Your task to perform on an android device: Search for hotels in Los Angeles Image 0: 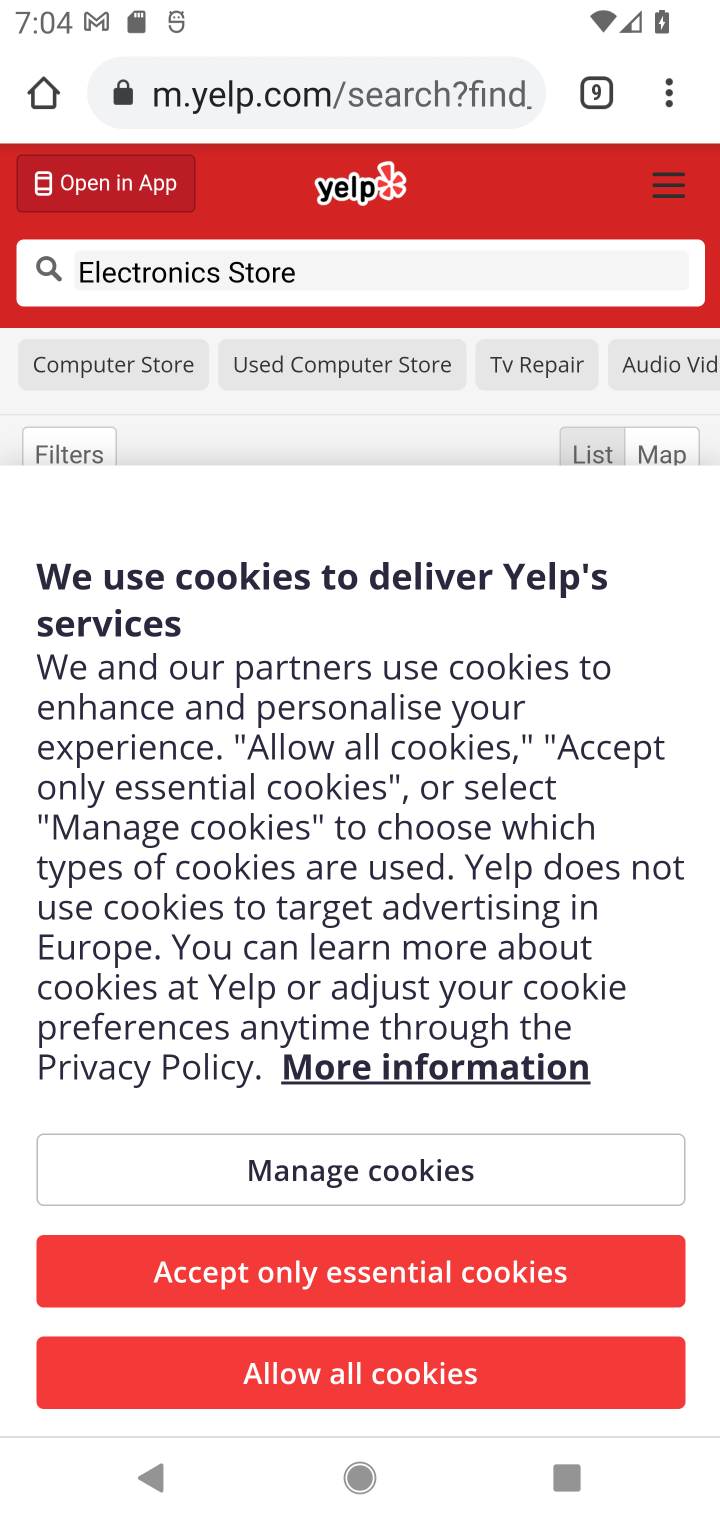
Step 0: press home button
Your task to perform on an android device: Search for hotels in Los Angeles Image 1: 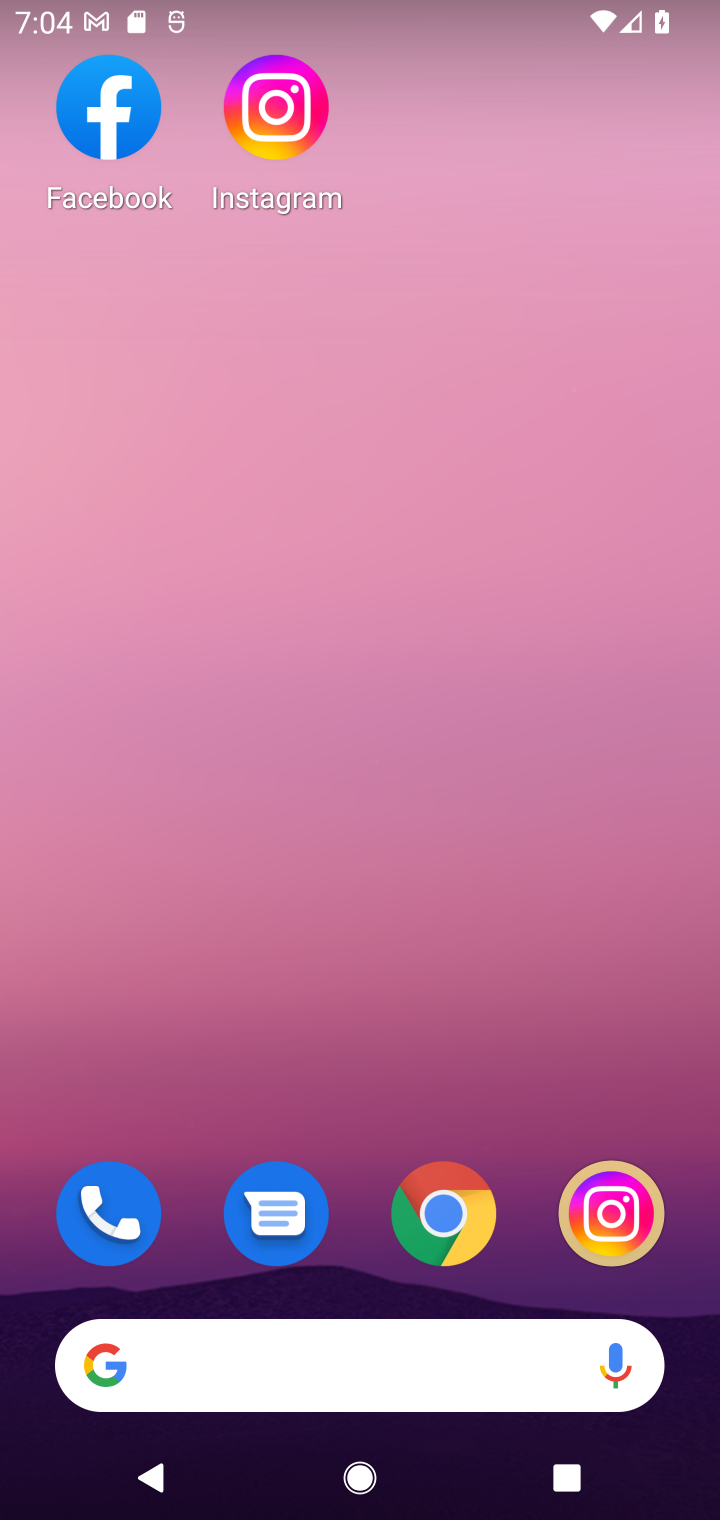
Step 1: drag from (364, 1307) to (374, 384)
Your task to perform on an android device: Search for hotels in Los Angeles Image 2: 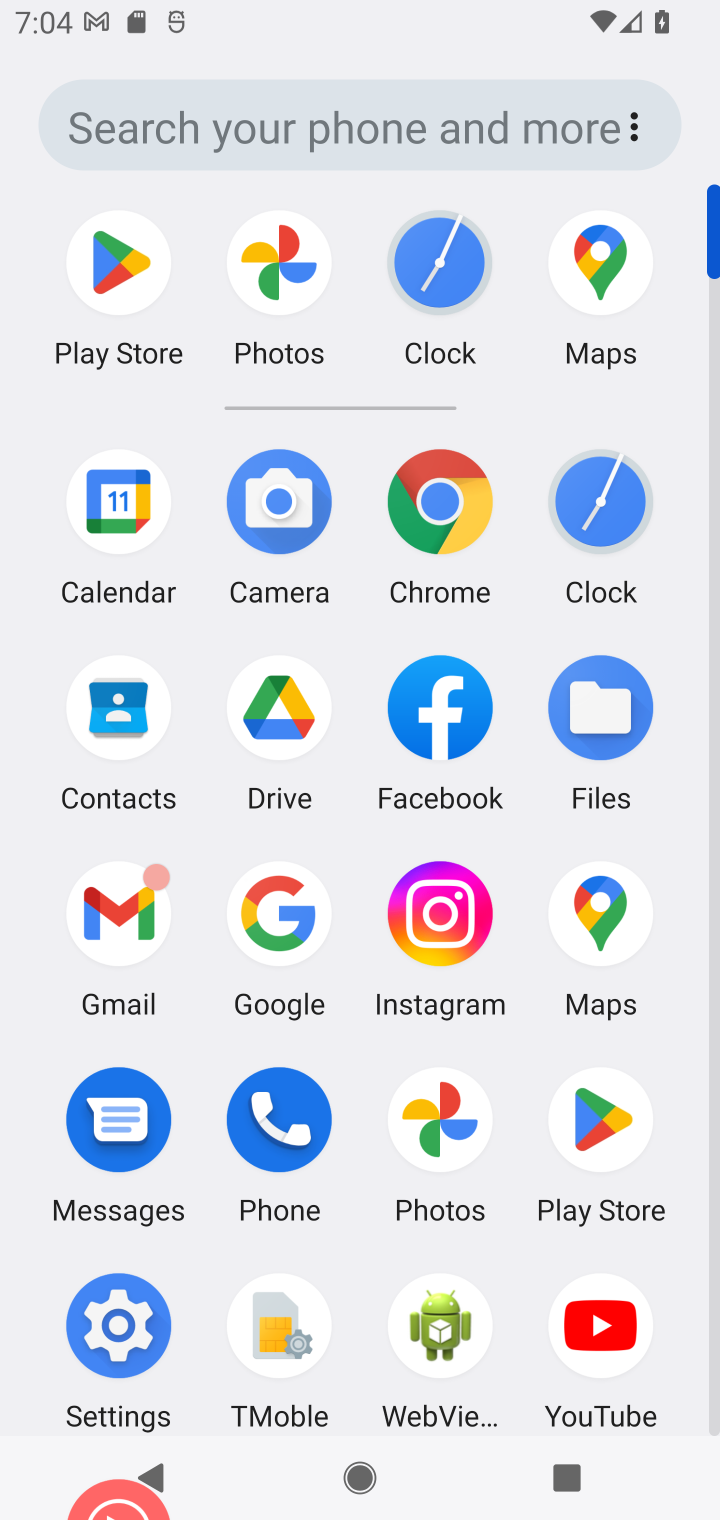
Step 2: click (274, 894)
Your task to perform on an android device: Search for hotels in Los Angeles Image 3: 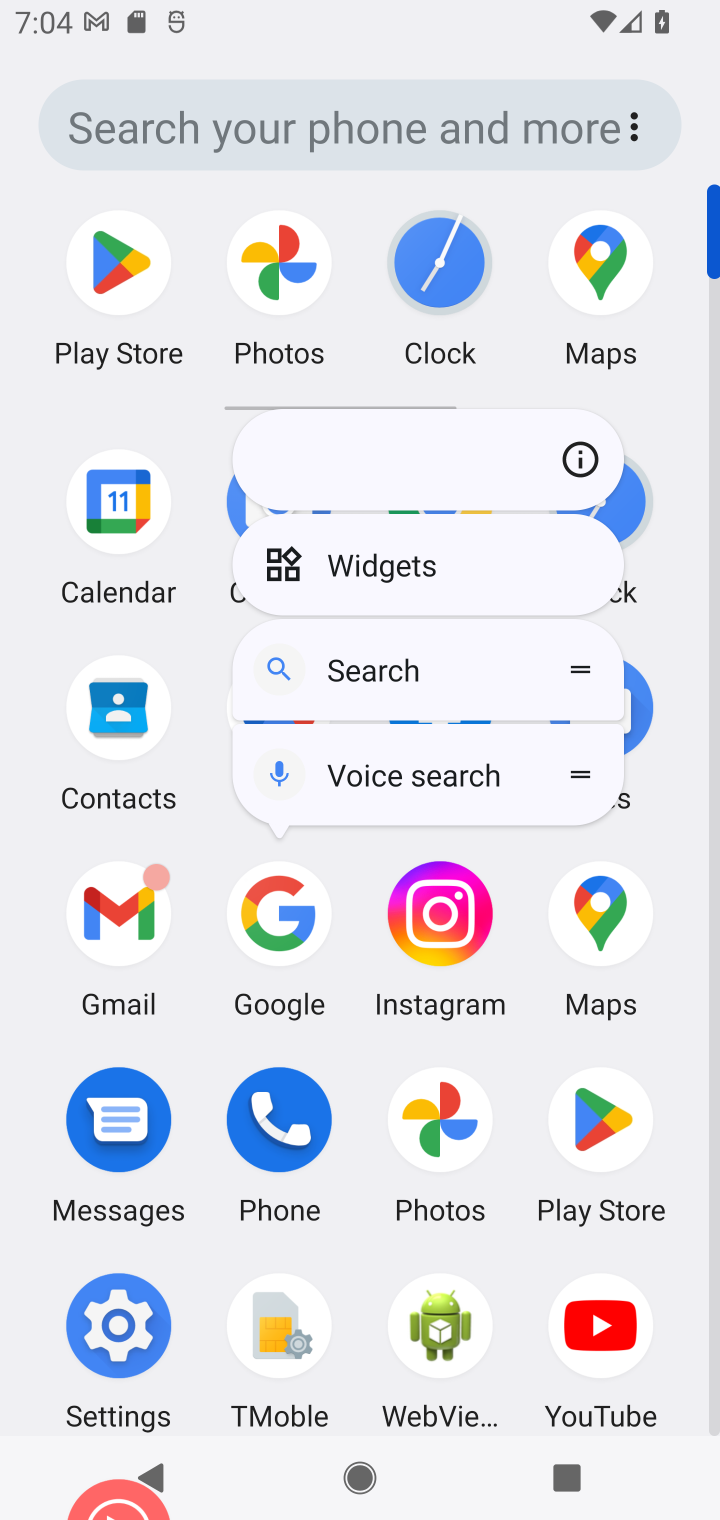
Step 3: click (274, 894)
Your task to perform on an android device: Search for hotels in Los Angeles Image 4: 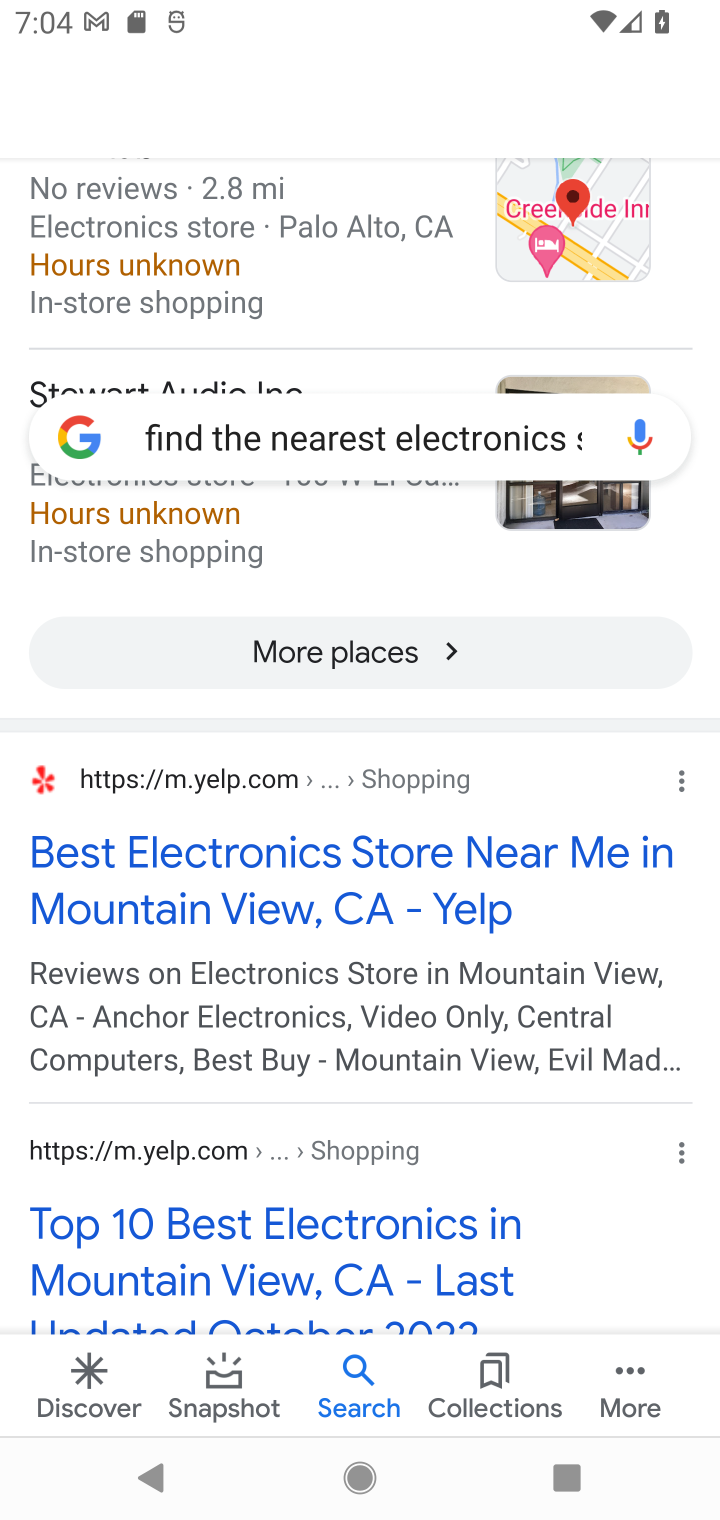
Step 4: click (262, 432)
Your task to perform on an android device: Search for hotels in Los Angeles Image 5: 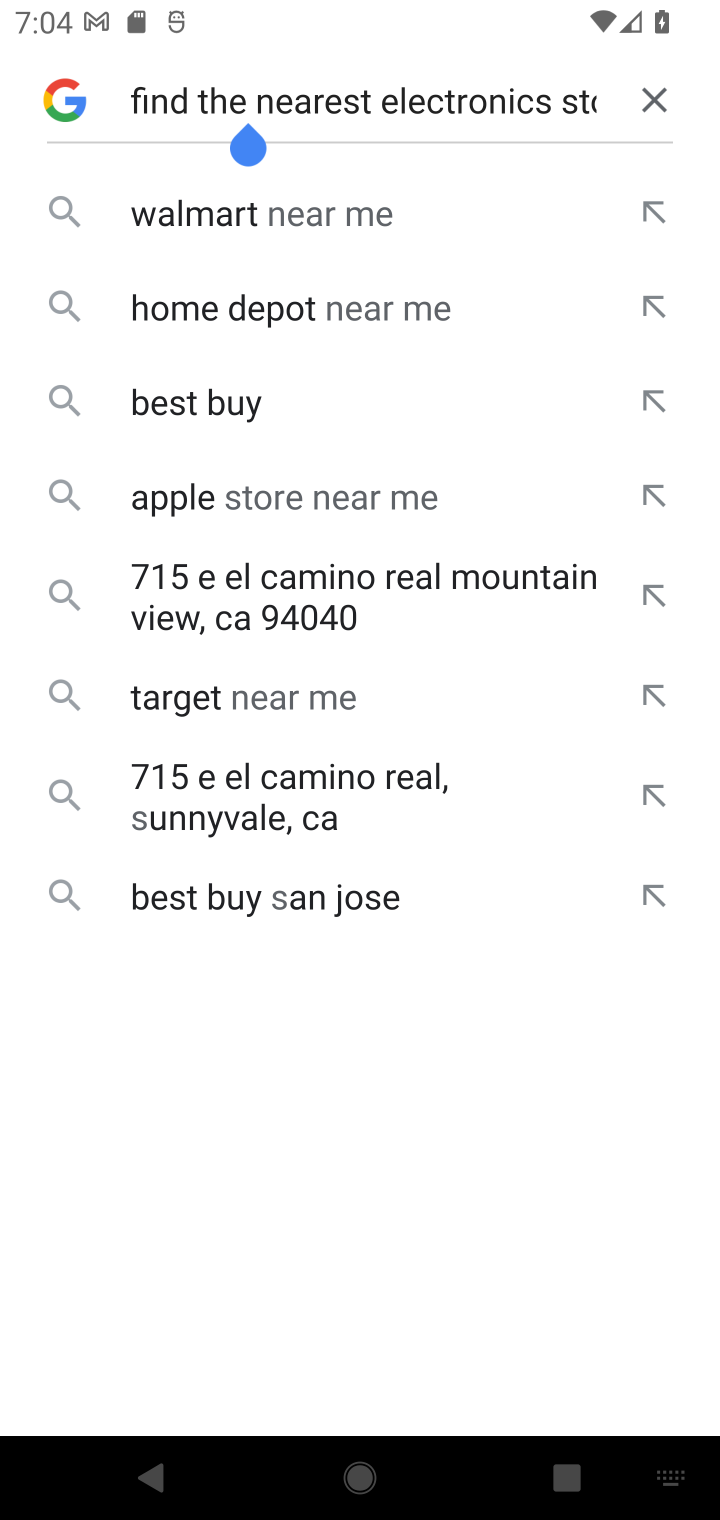
Step 5: click (650, 96)
Your task to perform on an android device: Search for hotels in Los Angeles Image 6: 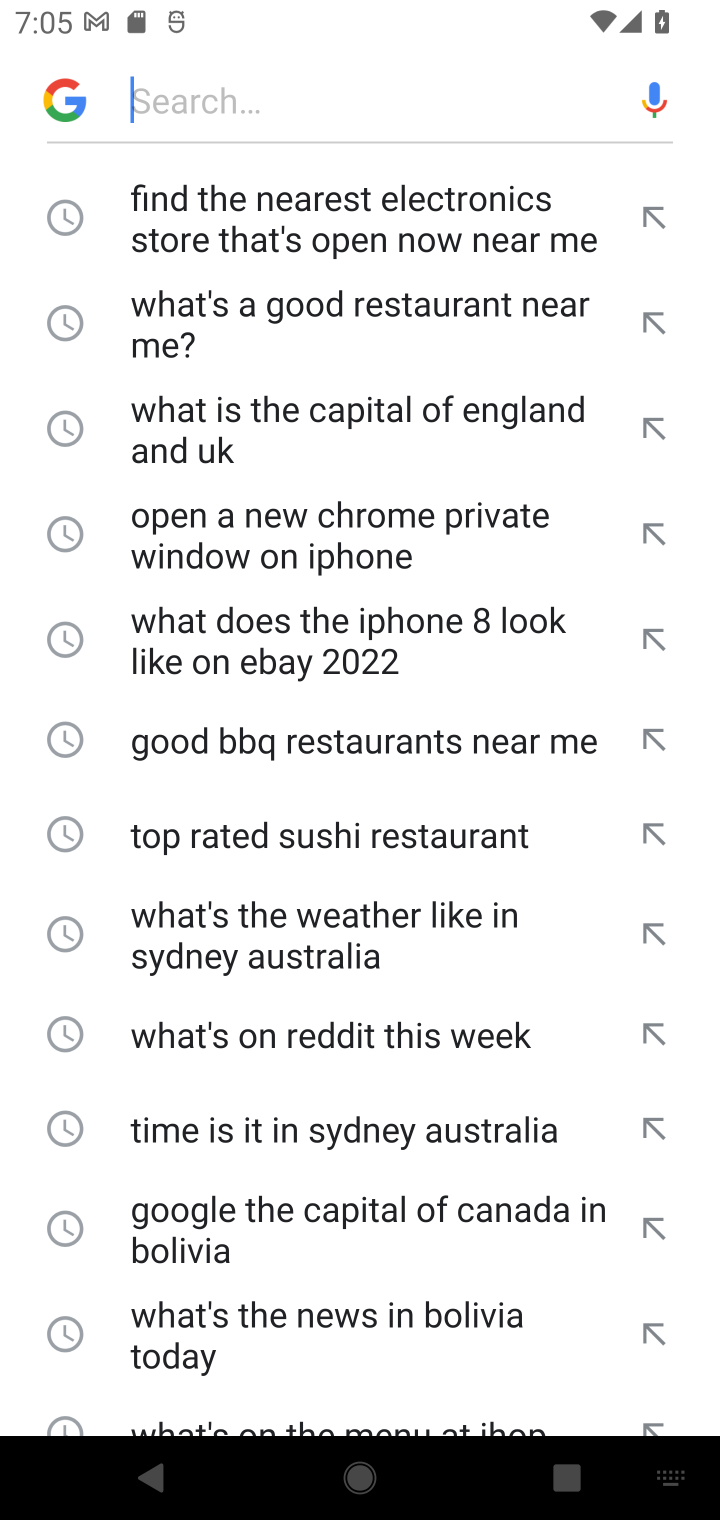
Step 6: click (372, 69)
Your task to perform on an android device: Search for hotels in Los Angeles Image 7: 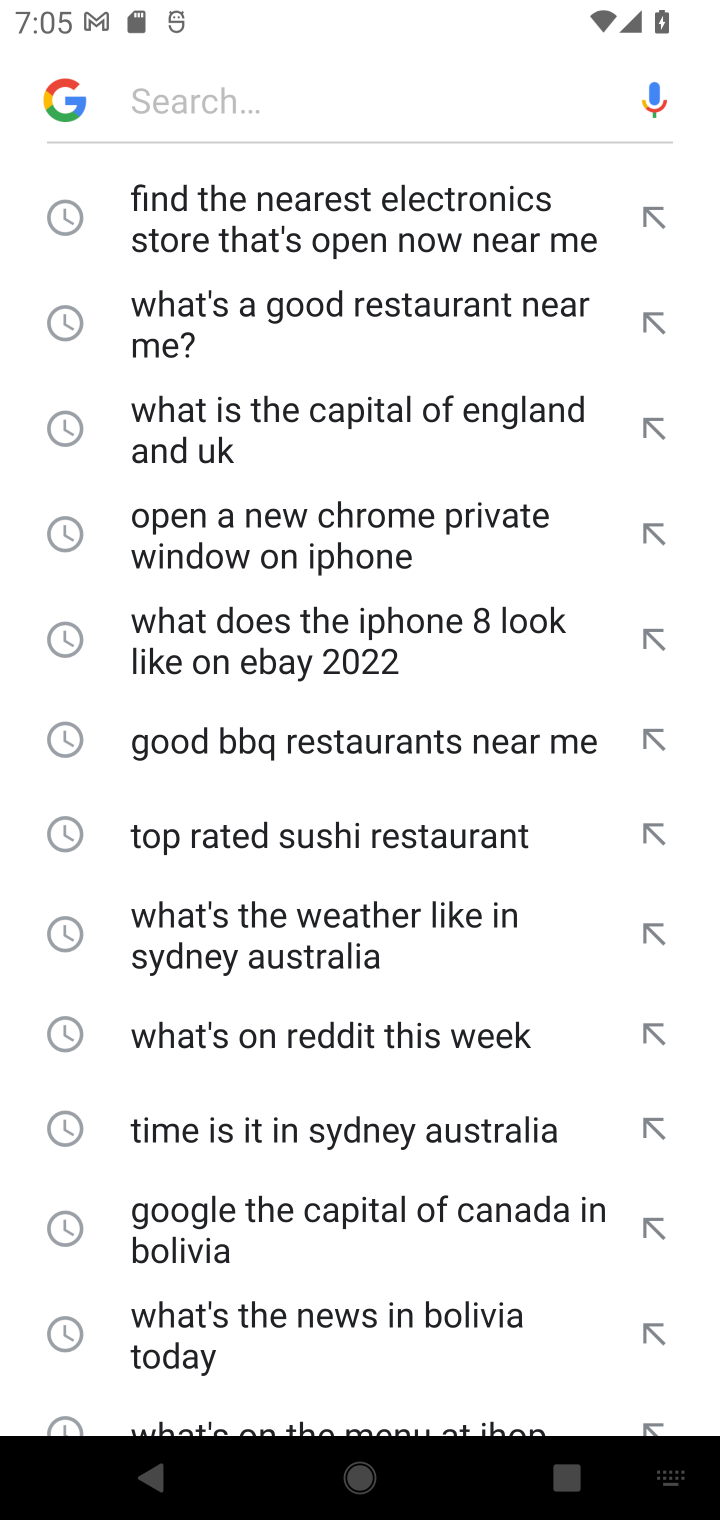
Step 7: type "Search for hotels in Los Angeles "
Your task to perform on an android device: Search for hotels in Los Angeles Image 8: 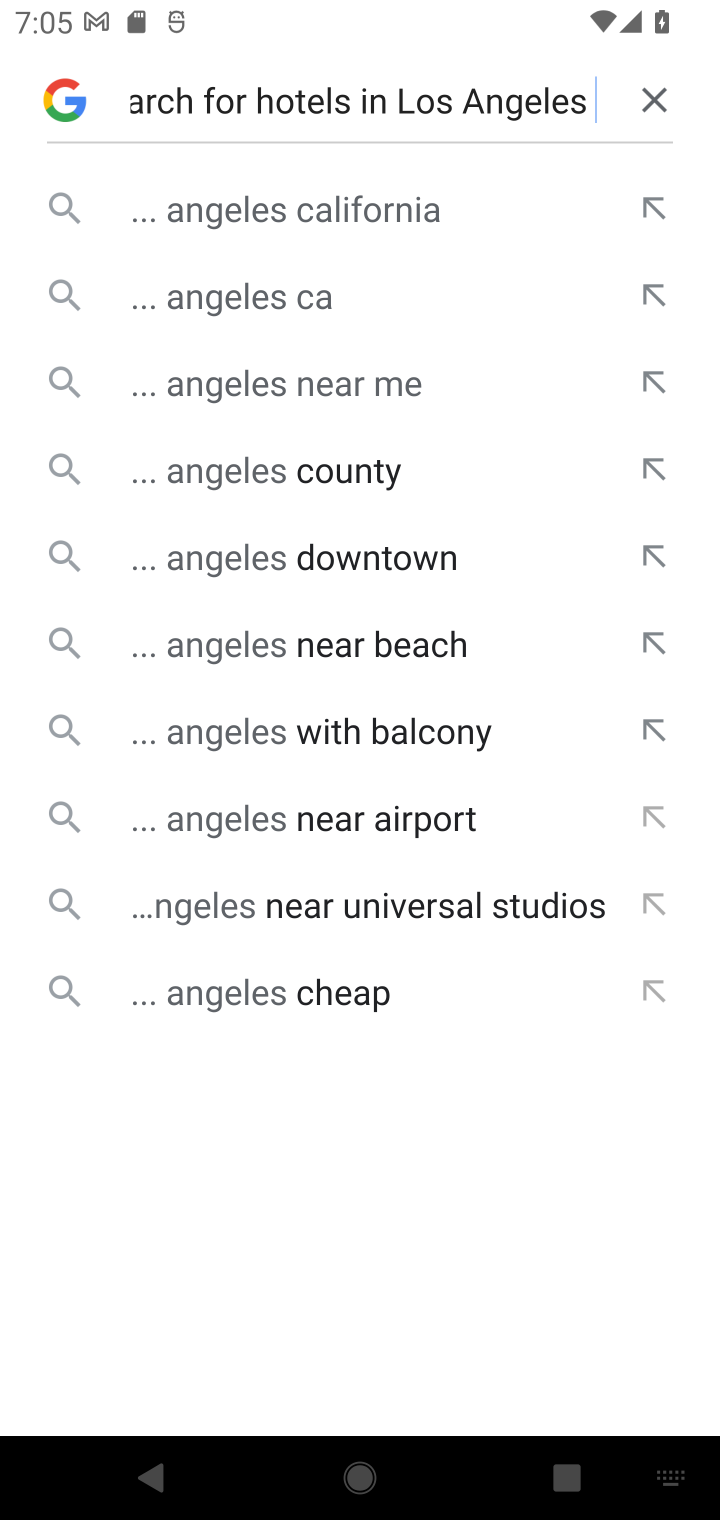
Step 8: click (222, 194)
Your task to perform on an android device: Search for hotels in Los Angeles Image 9: 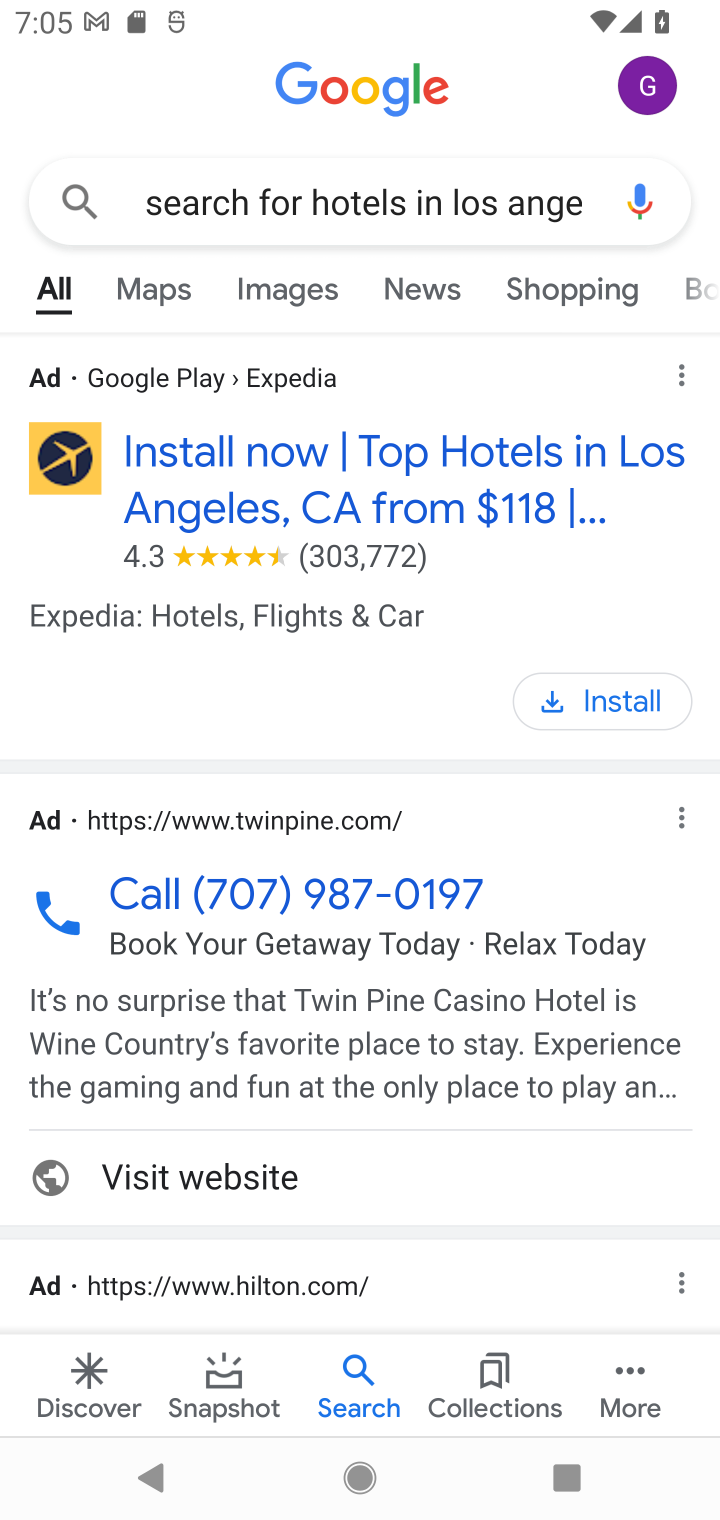
Step 9: click (269, 462)
Your task to perform on an android device: Search for hotels in Los Angeles Image 10: 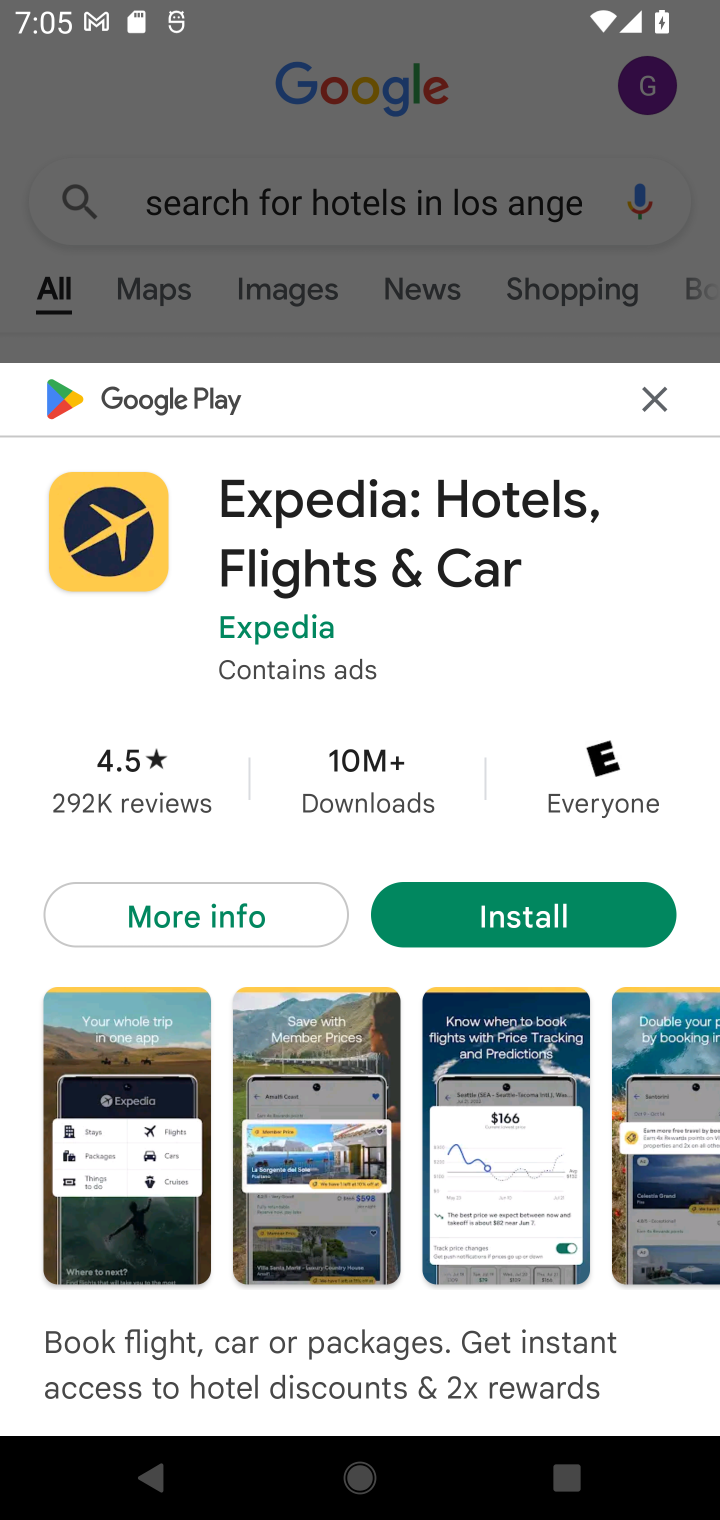
Step 10: click (641, 393)
Your task to perform on an android device: Search for hotels in Los Angeles Image 11: 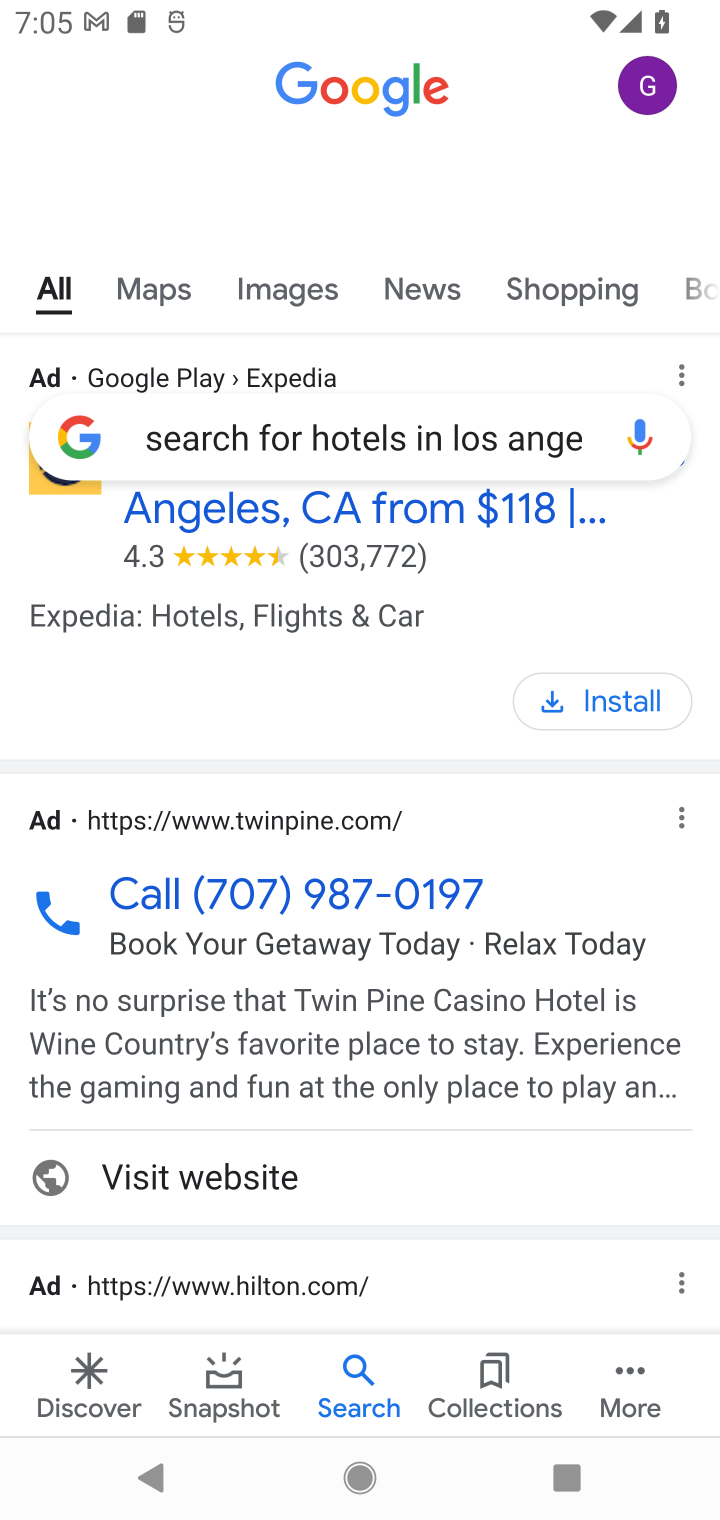
Step 11: drag from (318, 1257) to (376, 462)
Your task to perform on an android device: Search for hotels in Los Angeles Image 12: 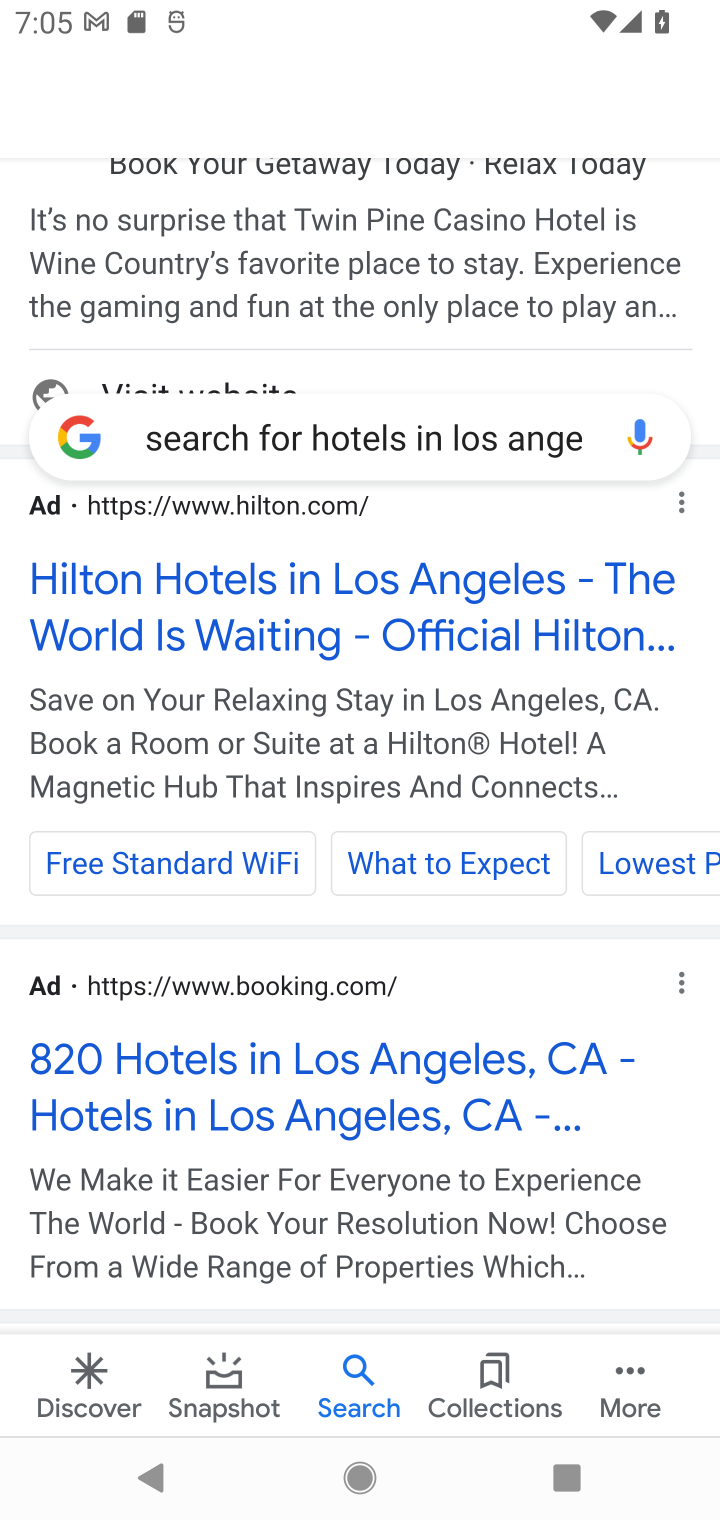
Step 12: click (217, 577)
Your task to perform on an android device: Search for hotels in Los Angeles Image 13: 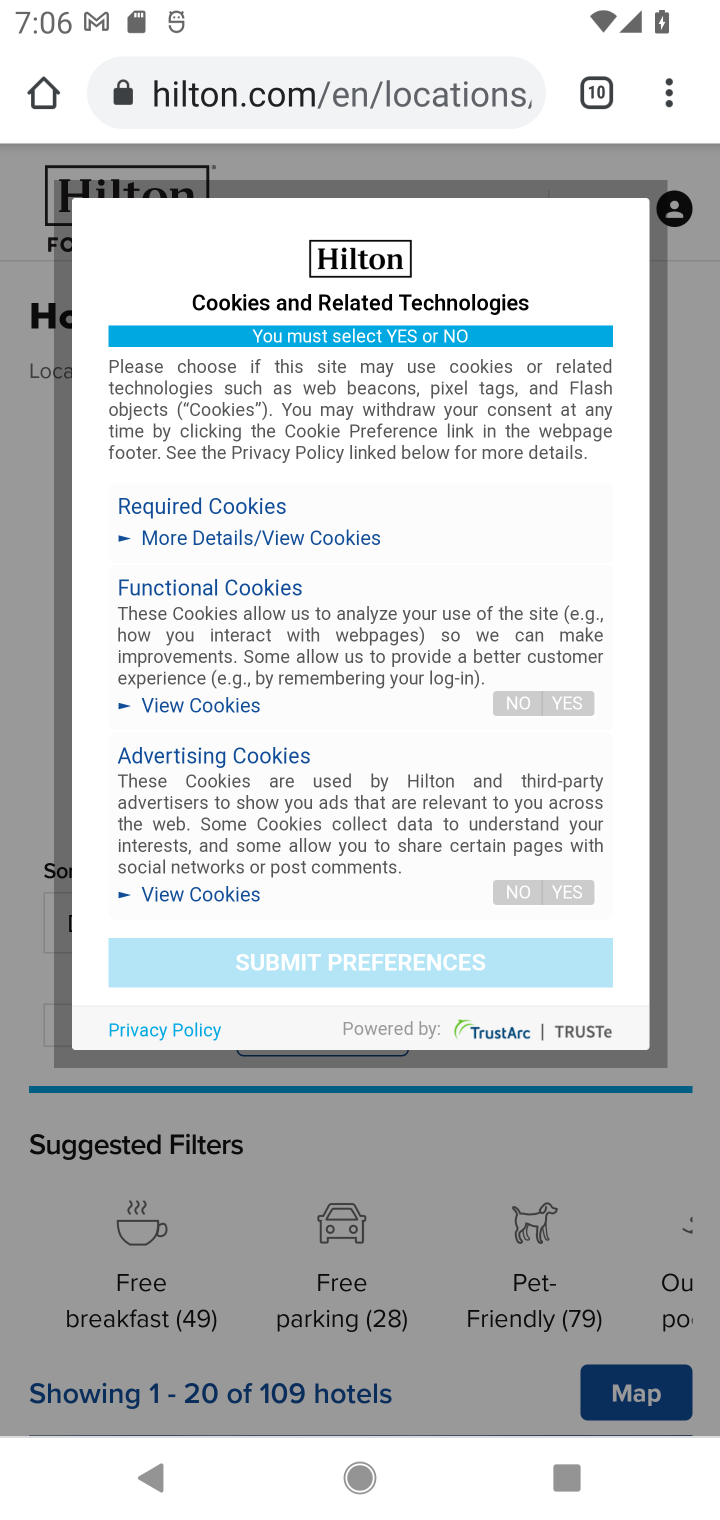
Step 13: click (705, 844)
Your task to perform on an android device: Search for hotels in Los Angeles Image 14: 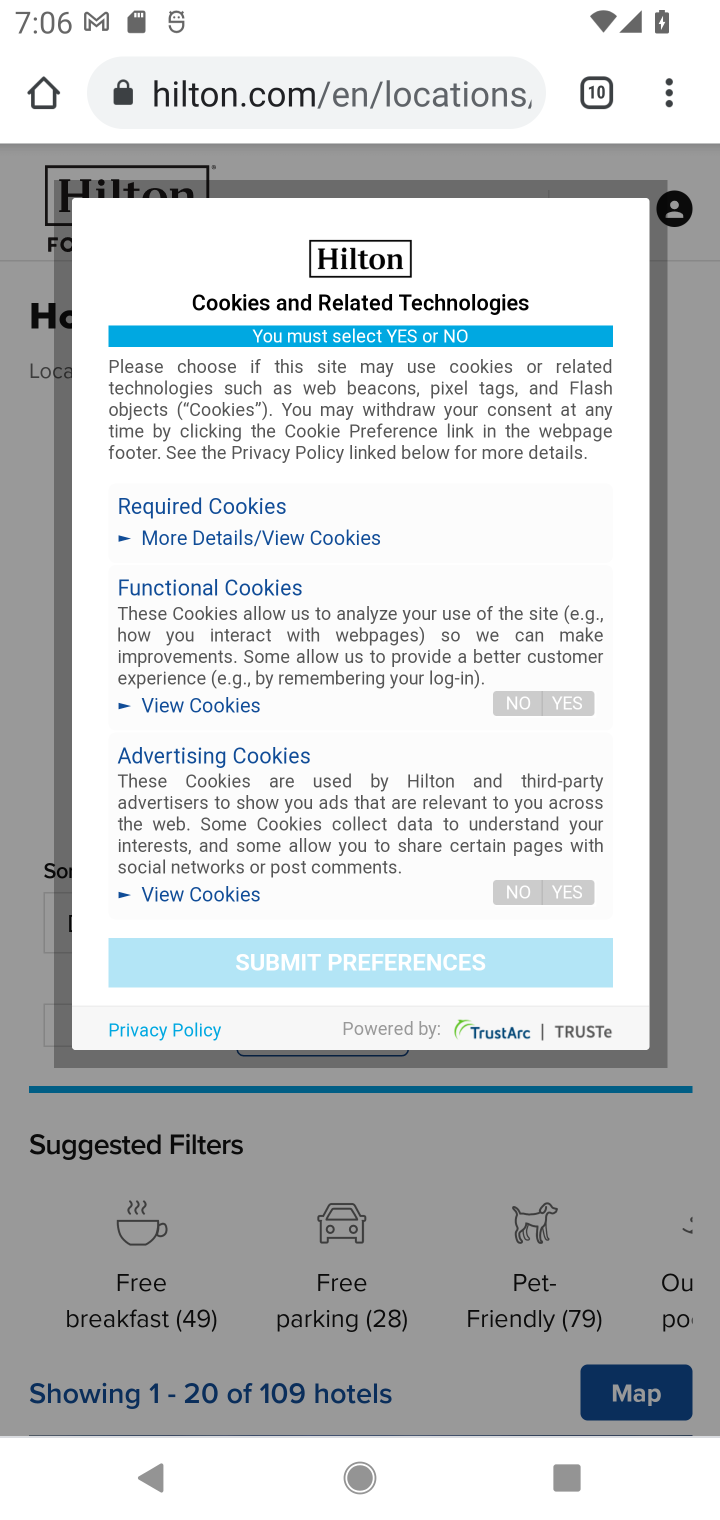
Step 14: click (686, 211)
Your task to perform on an android device: Search for hotels in Los Angeles Image 15: 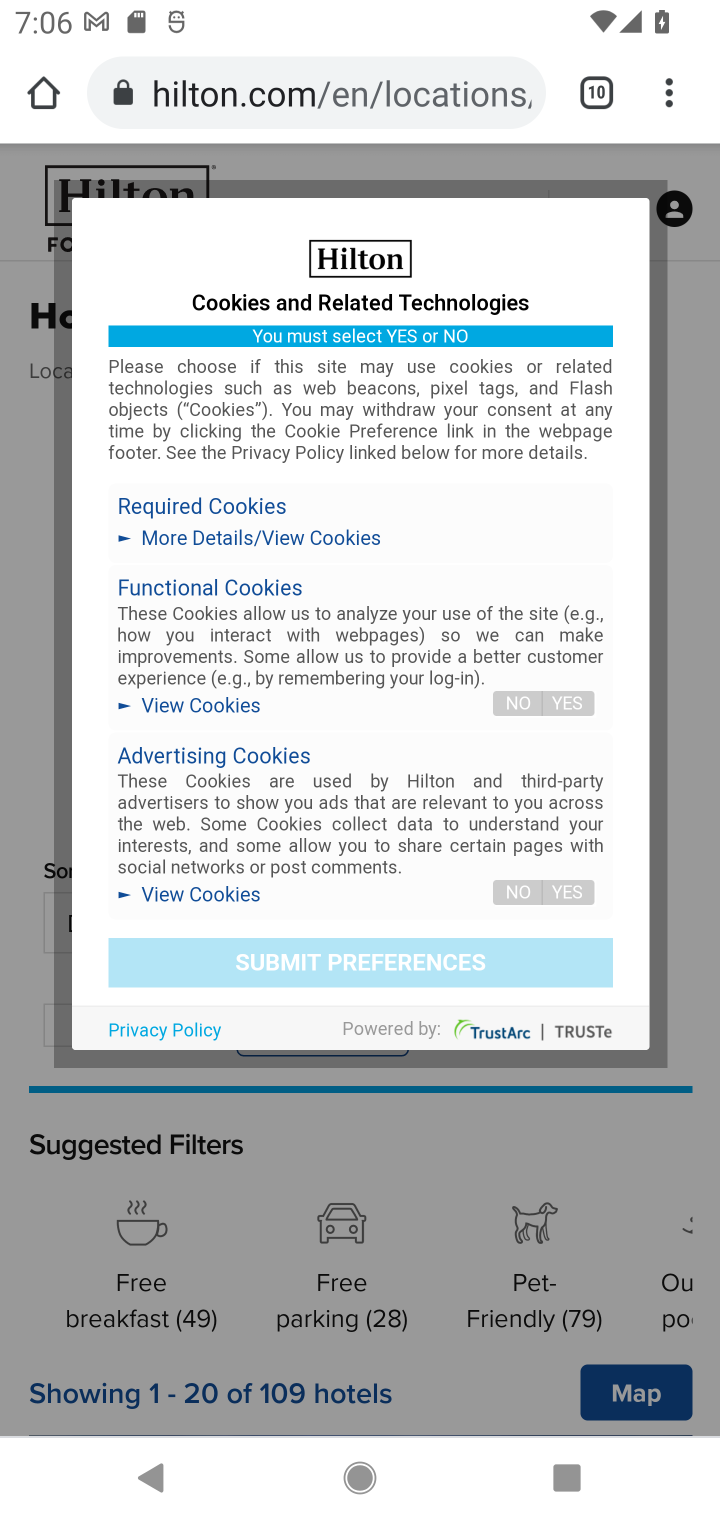
Step 15: click (392, 1202)
Your task to perform on an android device: Search for hotels in Los Angeles Image 16: 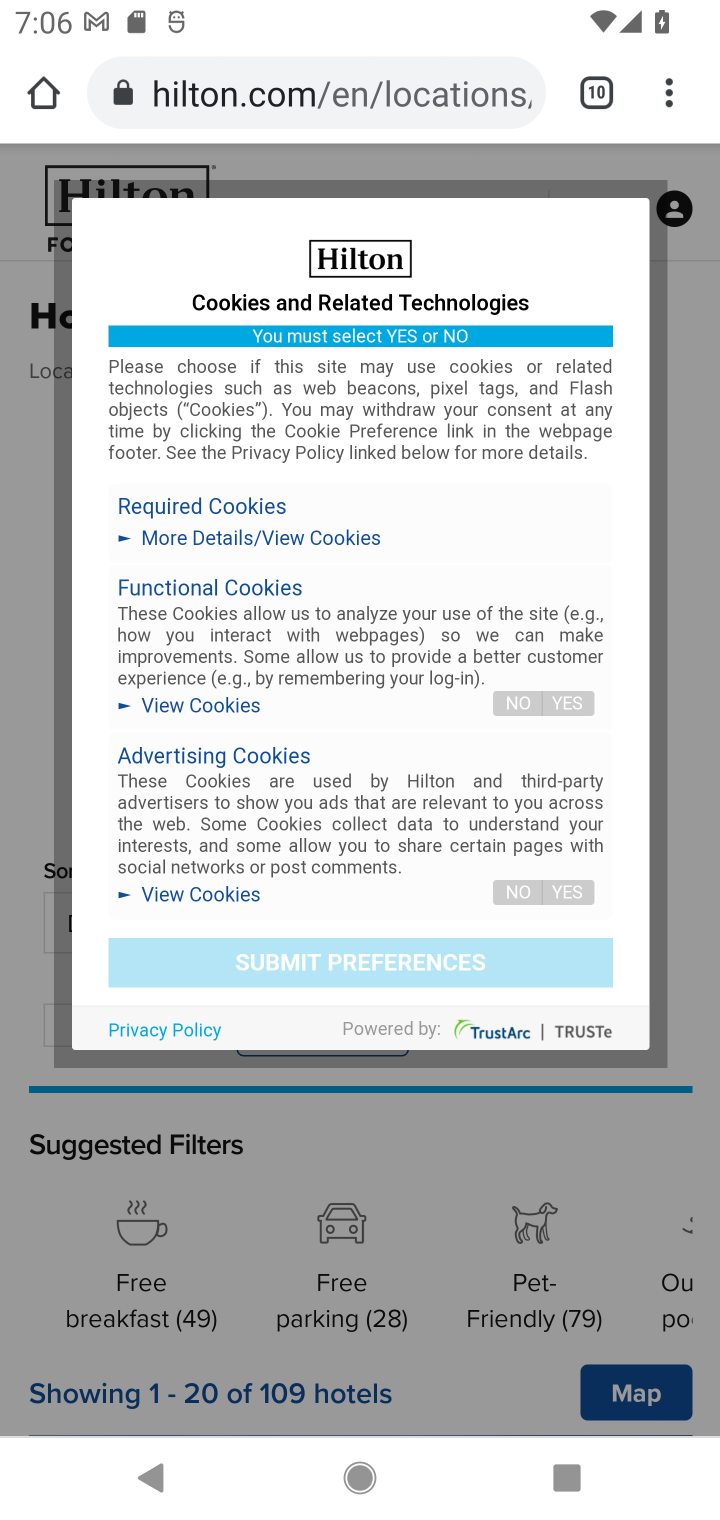
Step 16: click (676, 226)
Your task to perform on an android device: Search for hotels in Los Angeles Image 17: 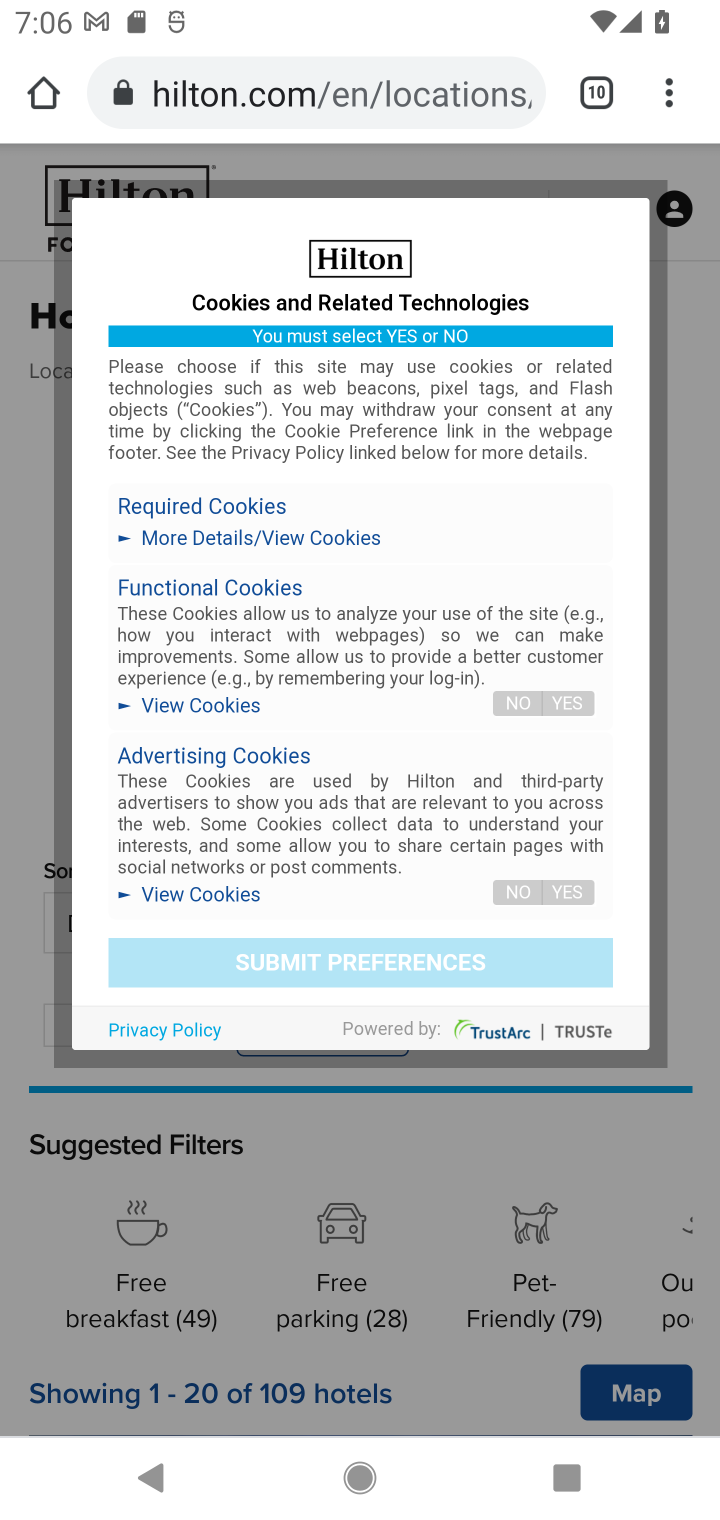
Step 17: press back button
Your task to perform on an android device: Search for hotels in Los Angeles Image 18: 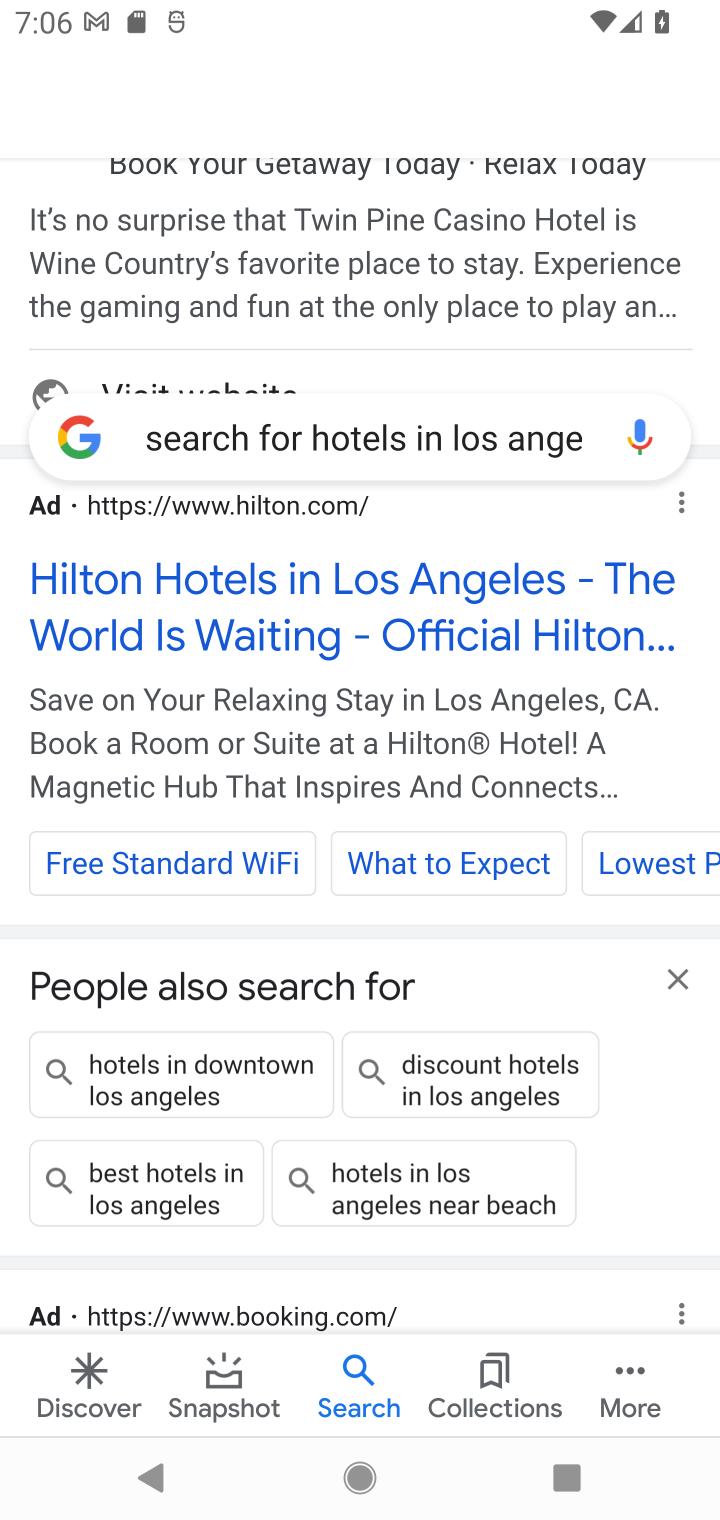
Step 18: drag from (199, 1107) to (266, 669)
Your task to perform on an android device: Search for hotels in Los Angeles Image 19: 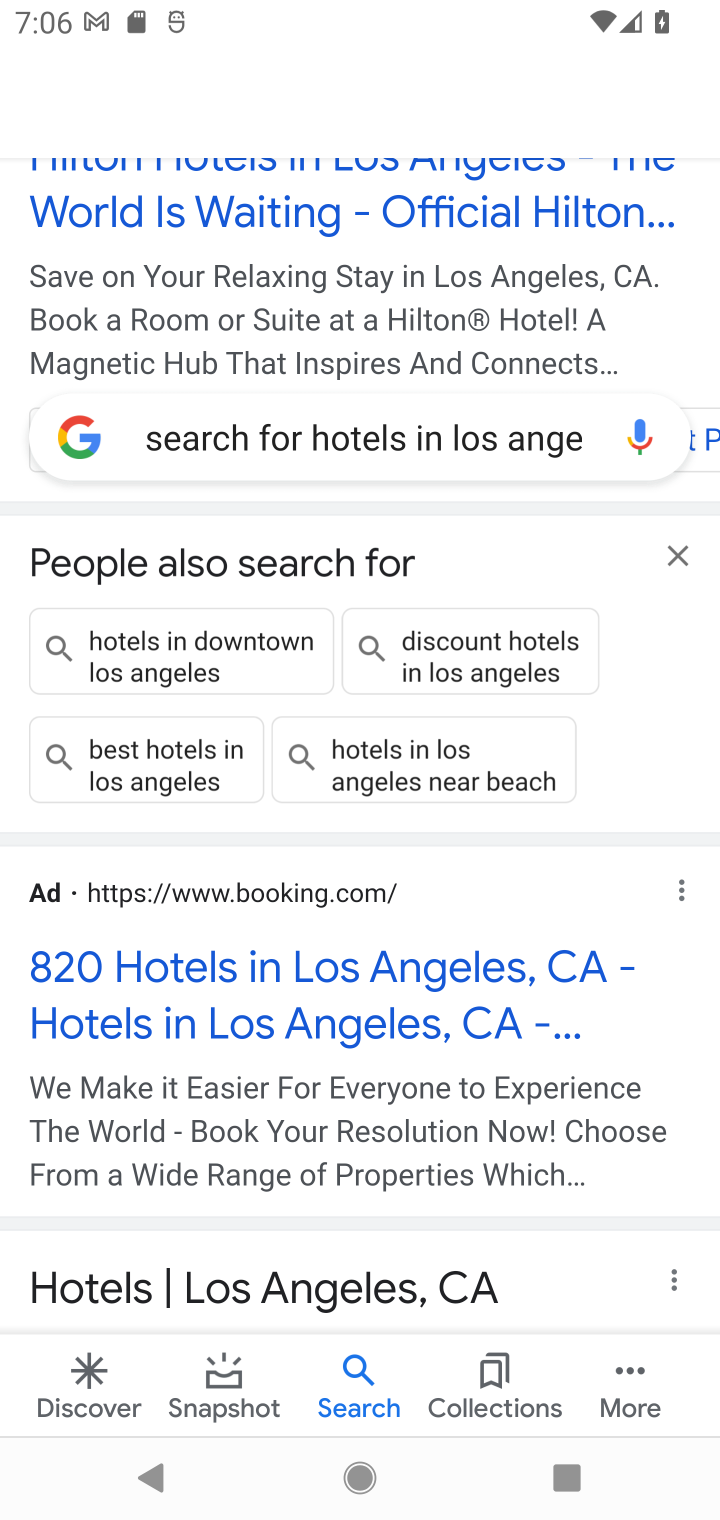
Step 19: click (266, 972)
Your task to perform on an android device: Search for hotels in Los Angeles Image 20: 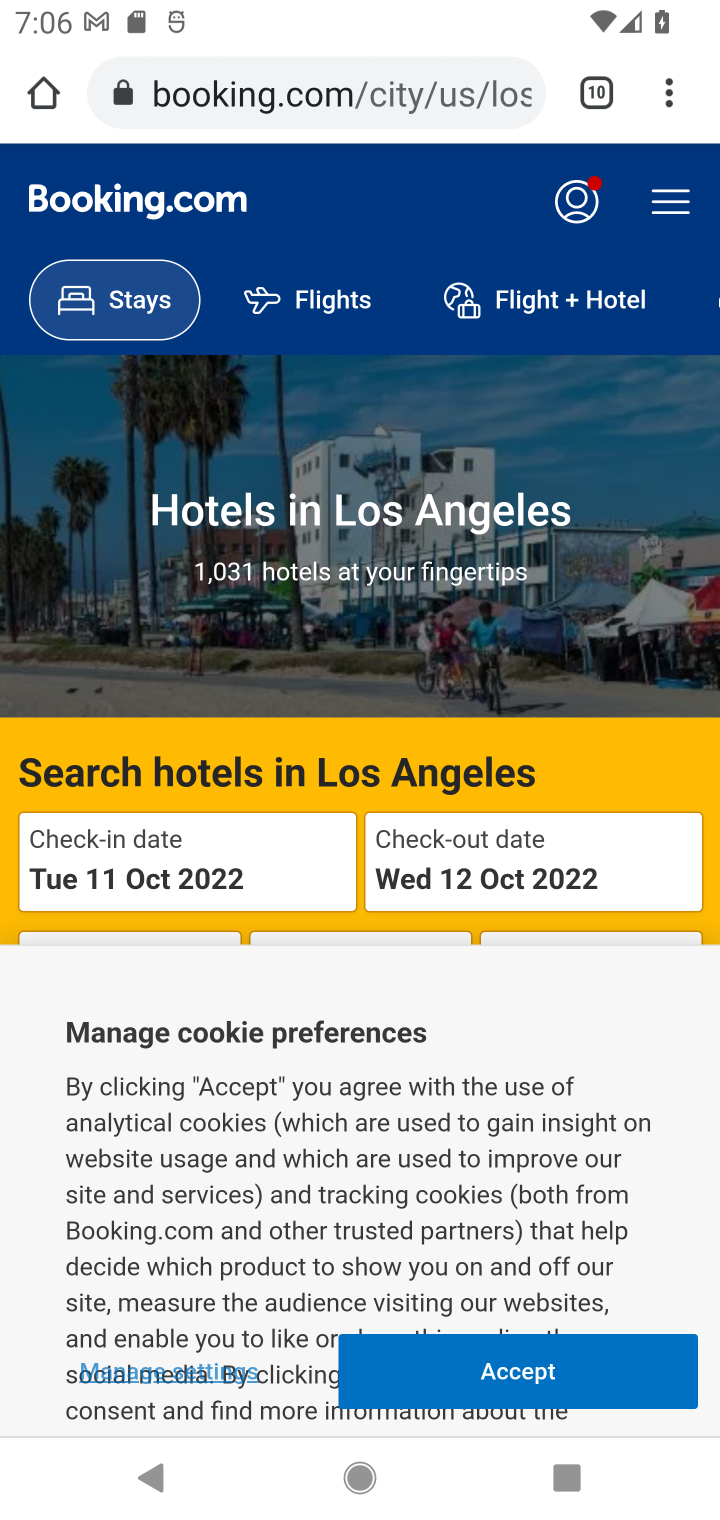
Step 20: click (277, 1121)
Your task to perform on an android device: Search for hotels in Los Angeles Image 21: 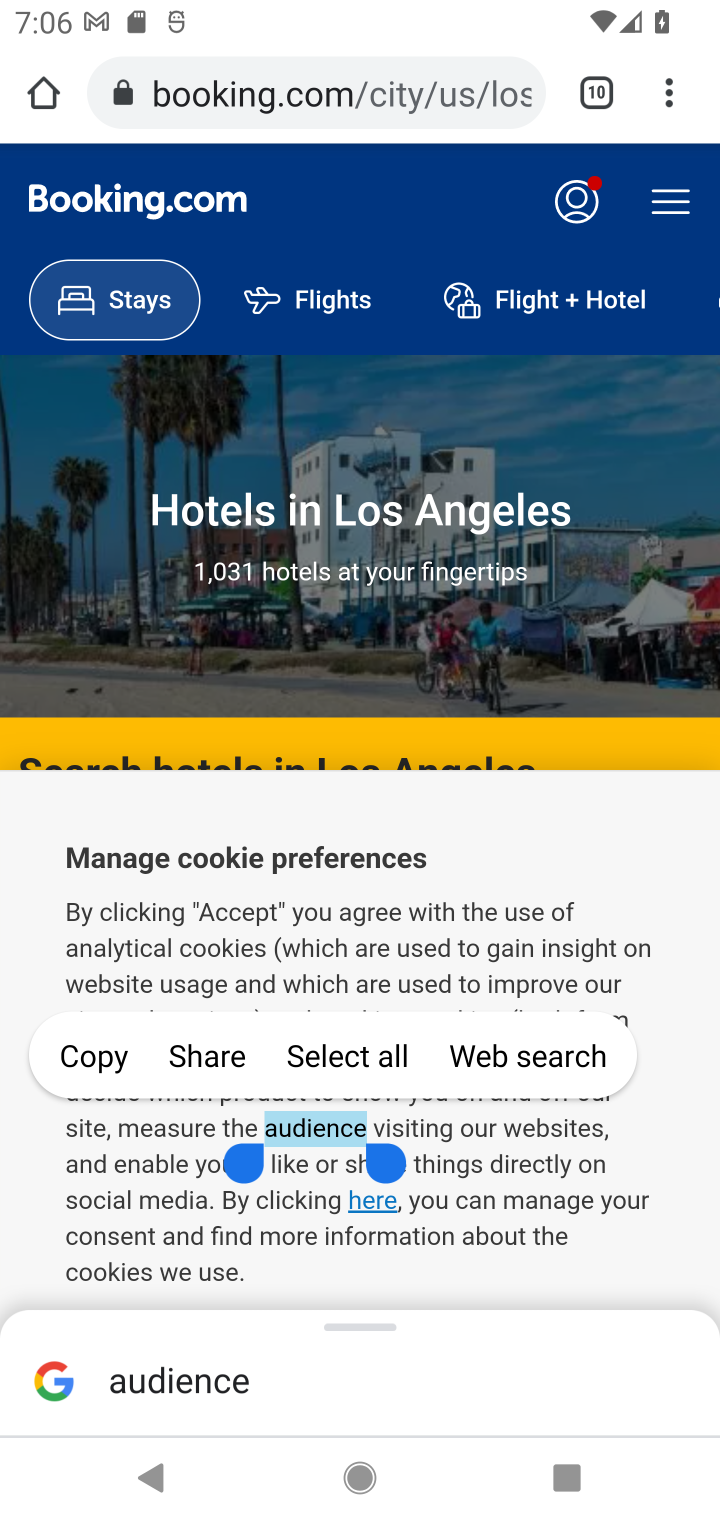
Step 21: click (677, 1269)
Your task to perform on an android device: Search for hotels in Los Angeles Image 22: 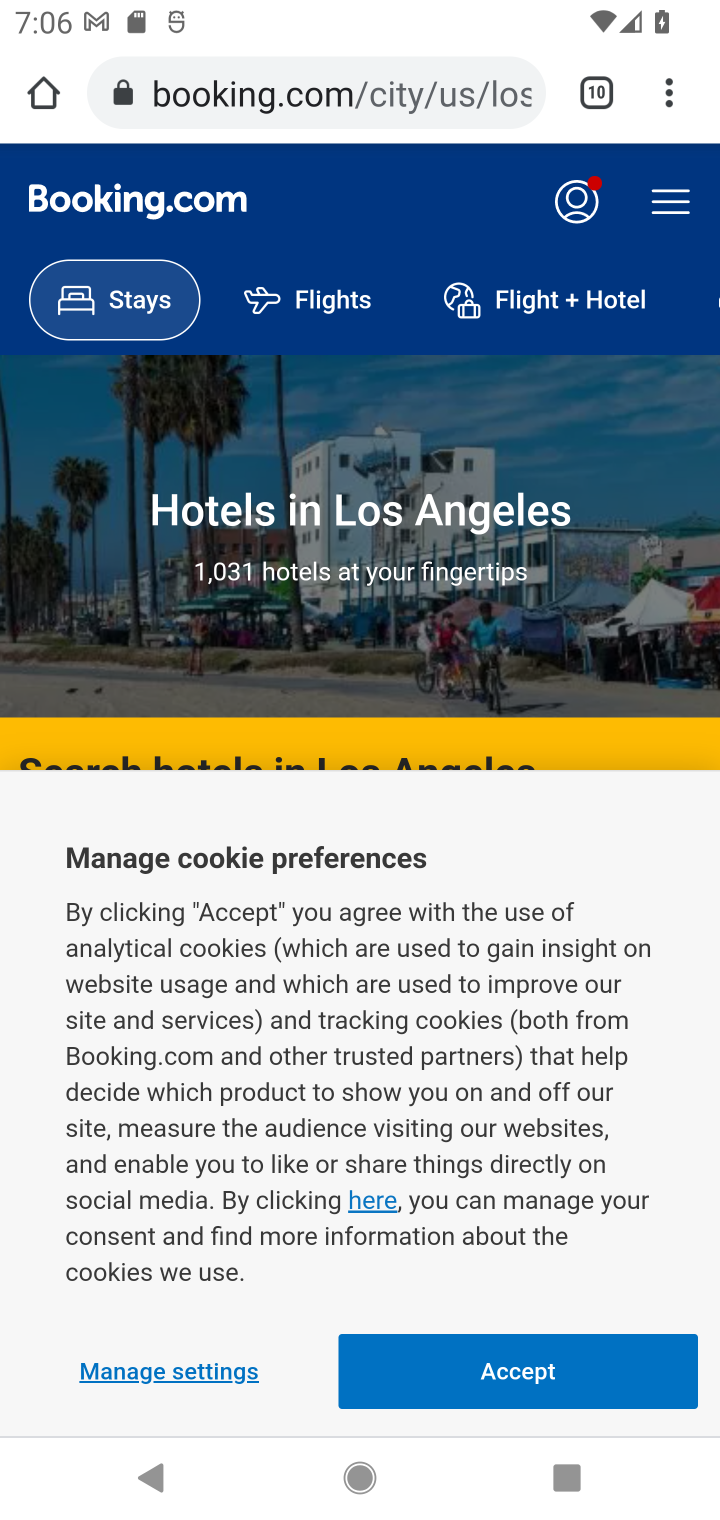
Step 22: click (431, 1365)
Your task to perform on an android device: Search for hotels in Los Angeles Image 23: 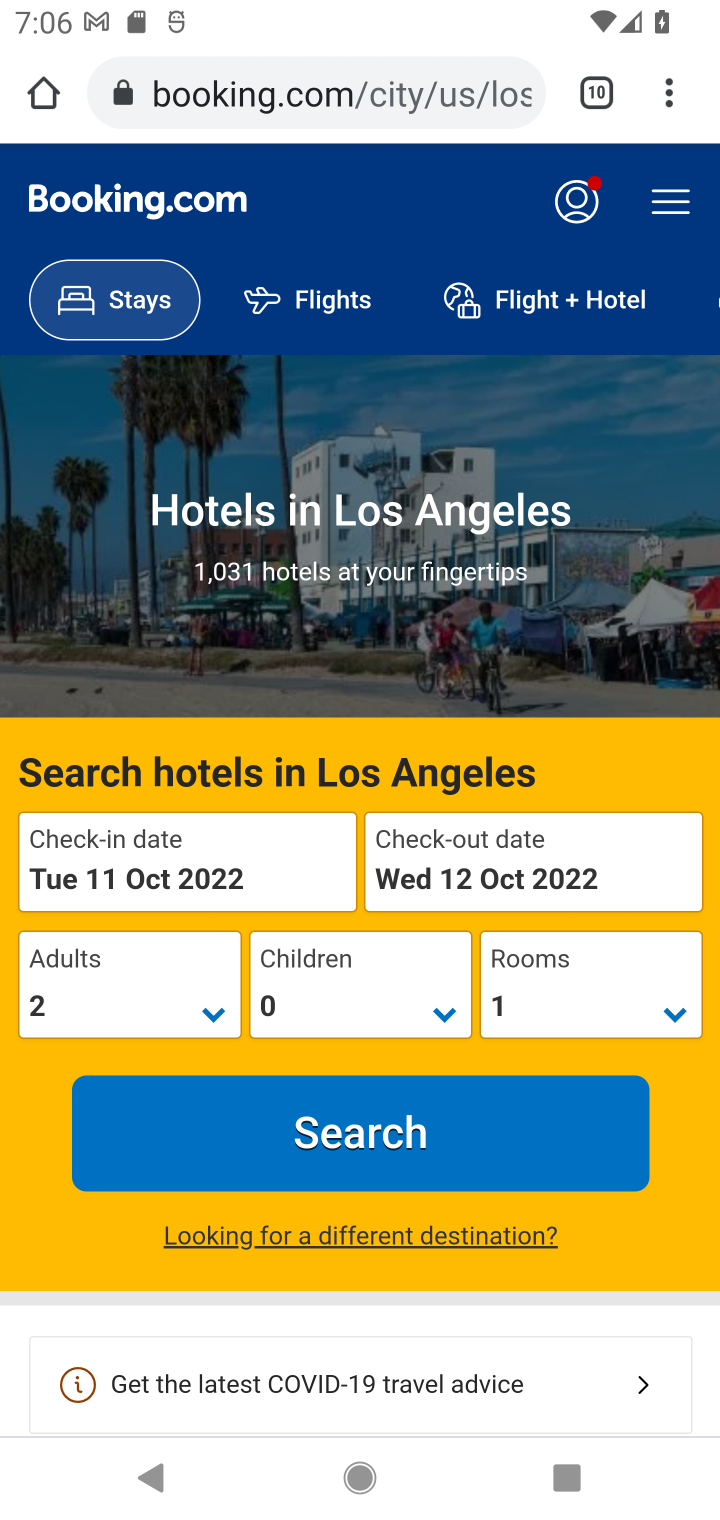
Step 23: click (429, 1134)
Your task to perform on an android device: Search for hotels in Los Angeles Image 24: 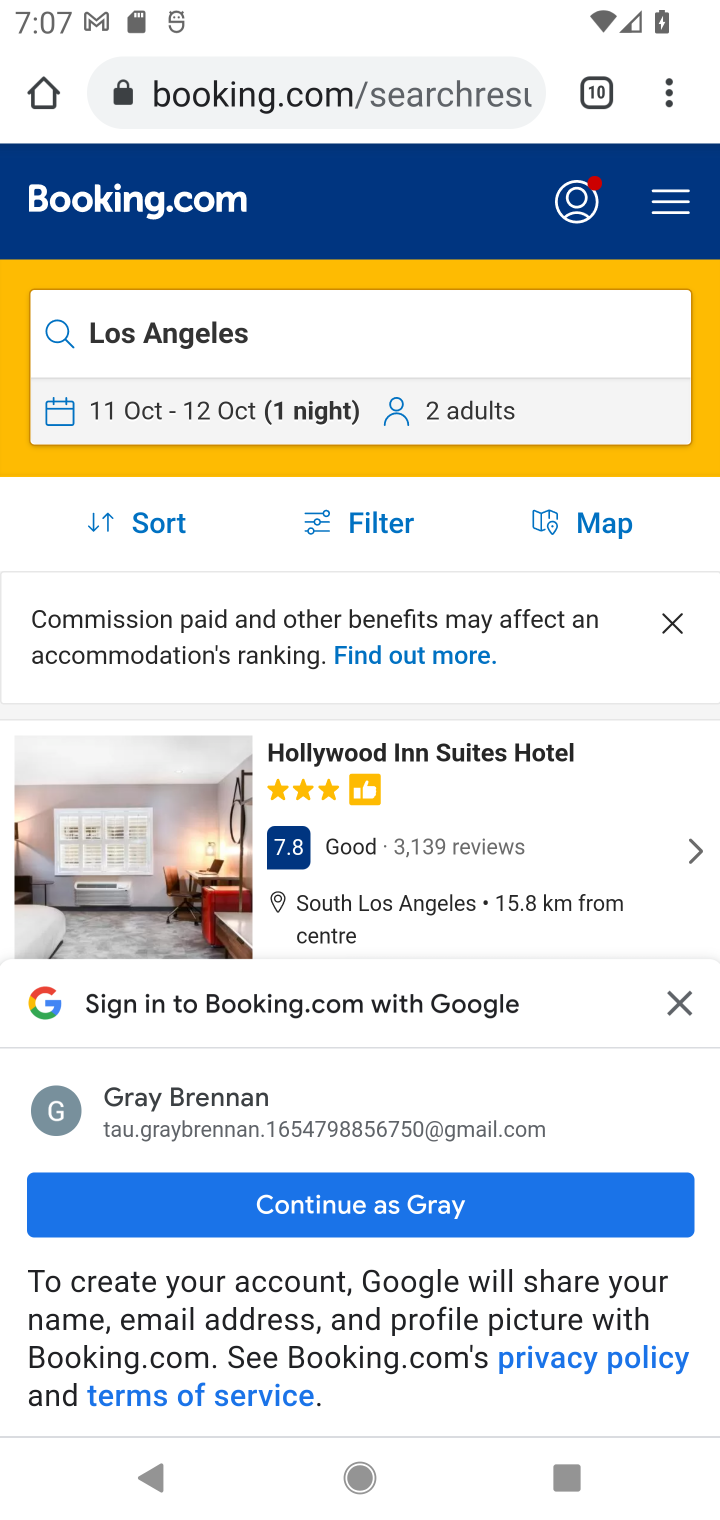
Step 24: click (673, 999)
Your task to perform on an android device: Search for hotels in Los Angeles Image 25: 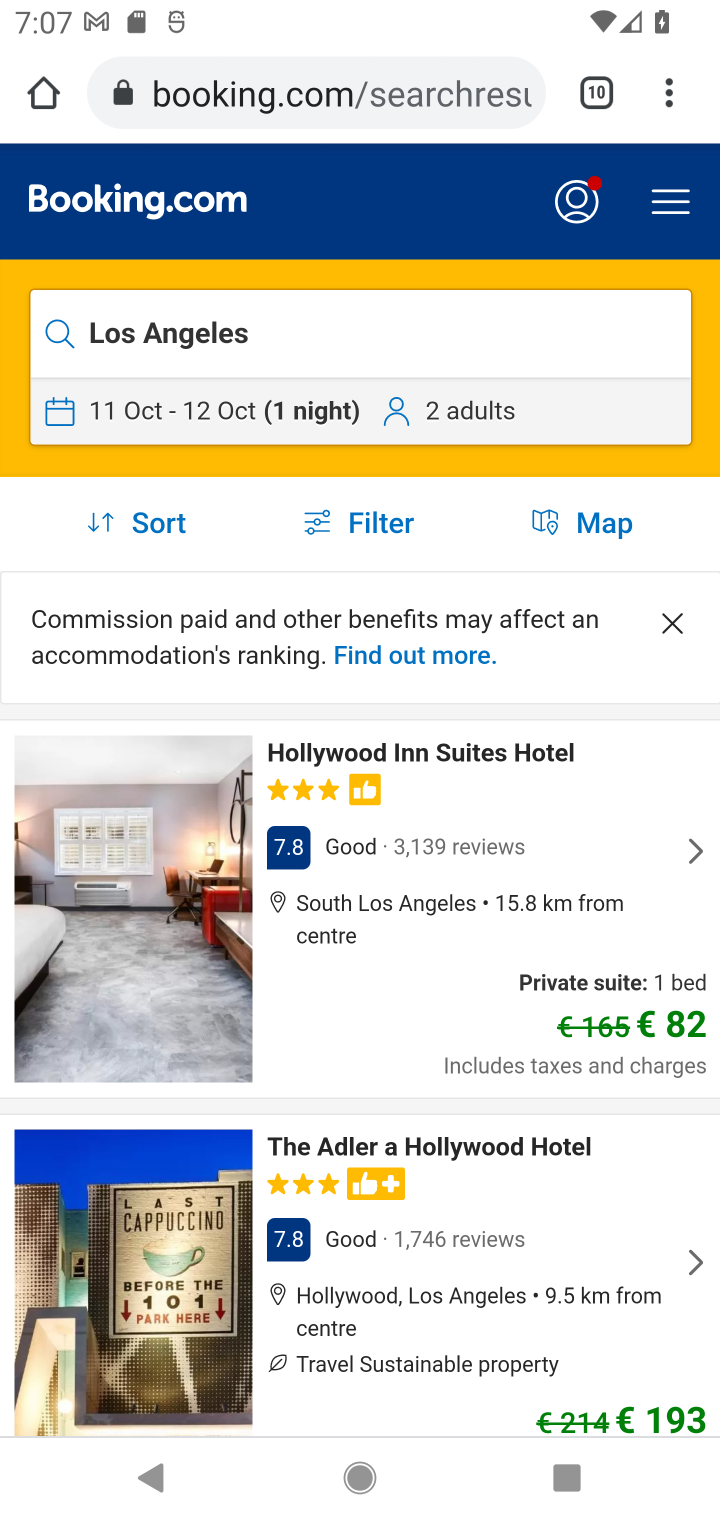
Step 25: task complete